Your task to perform on an android device: open the mobile data screen to see how much data has been used Image 0: 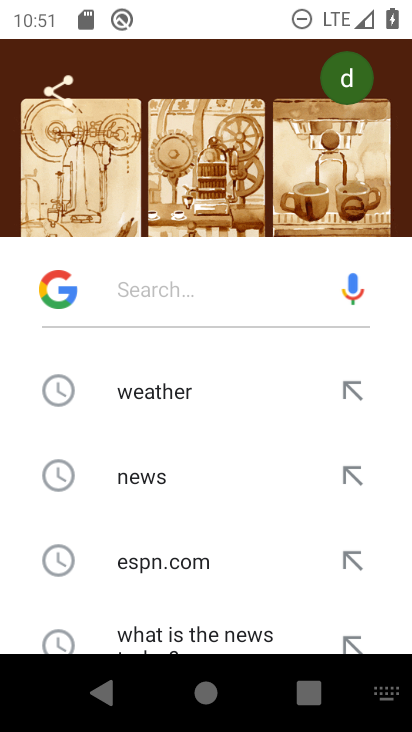
Step 0: press back button
Your task to perform on an android device: open the mobile data screen to see how much data has been used Image 1: 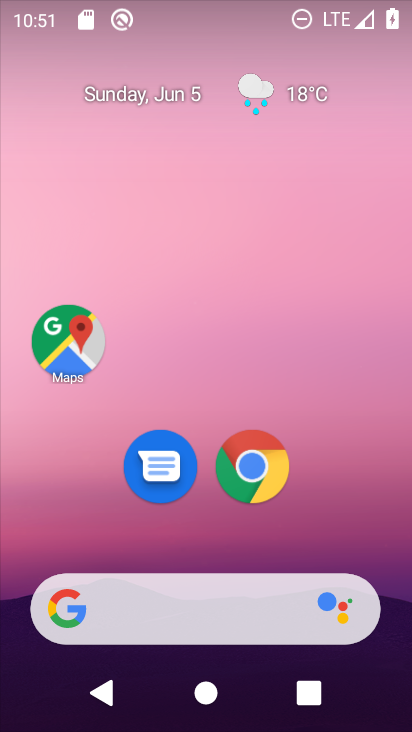
Step 1: drag from (390, 642) to (294, 40)
Your task to perform on an android device: open the mobile data screen to see how much data has been used Image 2: 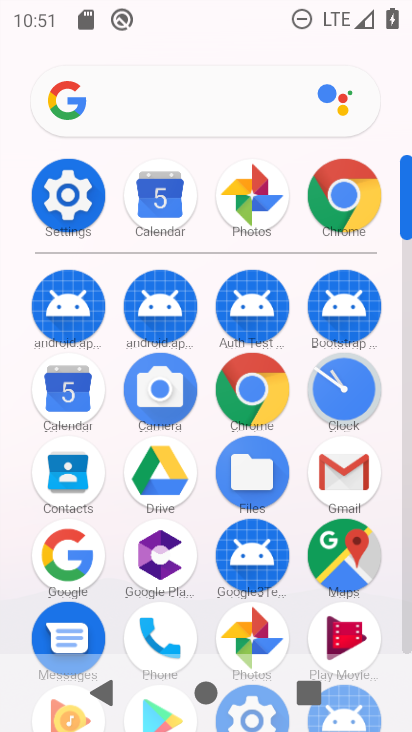
Step 2: drag from (16, 590) to (7, 257)
Your task to perform on an android device: open the mobile data screen to see how much data has been used Image 3: 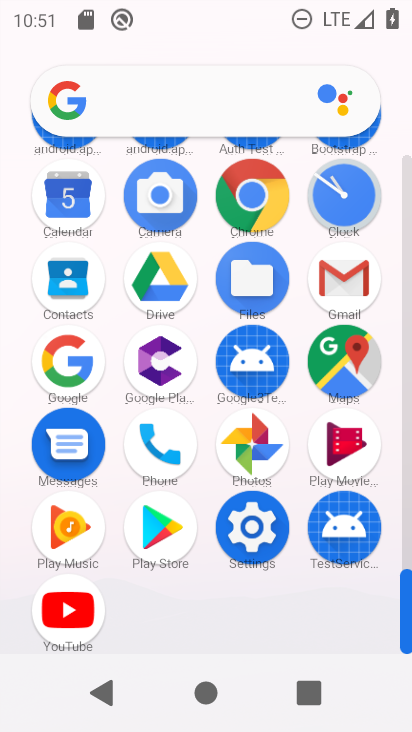
Step 3: click (251, 524)
Your task to perform on an android device: open the mobile data screen to see how much data has been used Image 4: 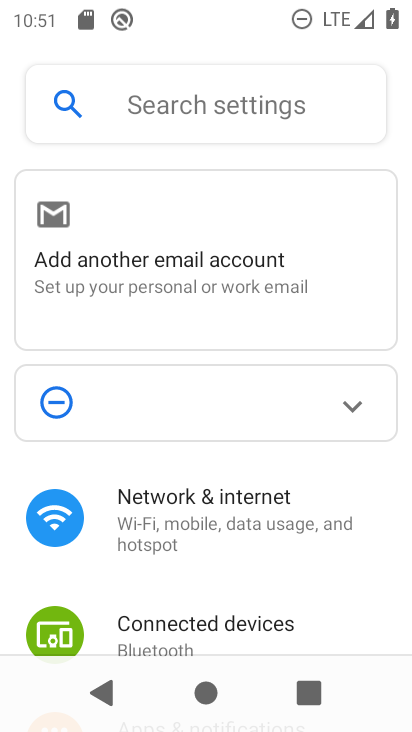
Step 4: click (245, 500)
Your task to perform on an android device: open the mobile data screen to see how much data has been used Image 5: 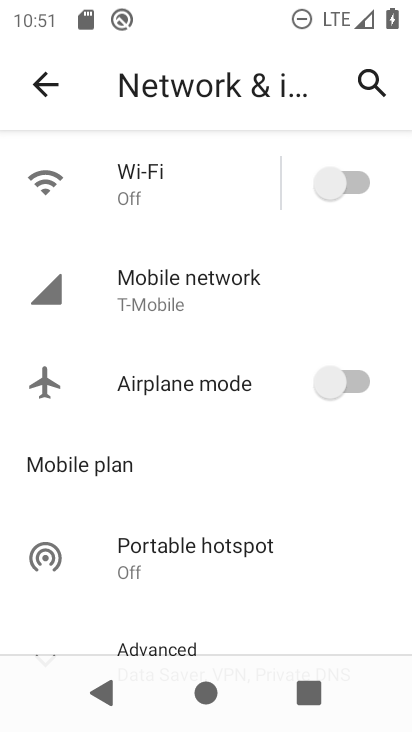
Step 5: click (190, 307)
Your task to perform on an android device: open the mobile data screen to see how much data has been used Image 6: 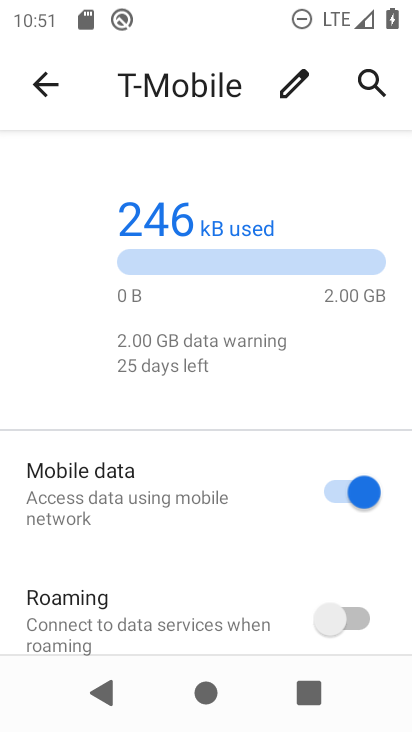
Step 6: task complete